Your task to perform on an android device: find photos in the google photos app Image 0: 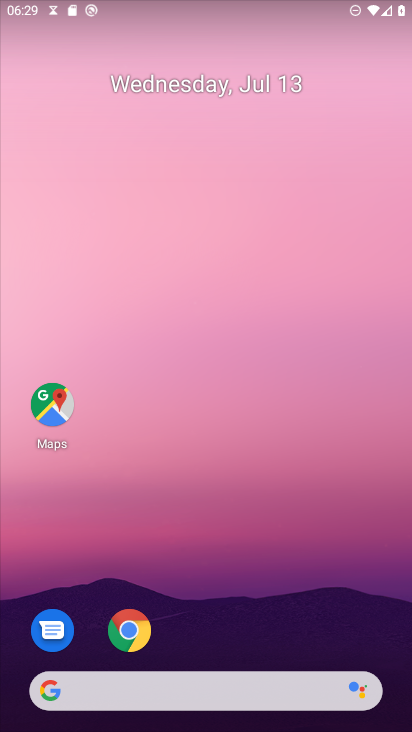
Step 0: drag from (165, 644) to (257, 116)
Your task to perform on an android device: find photos in the google photos app Image 1: 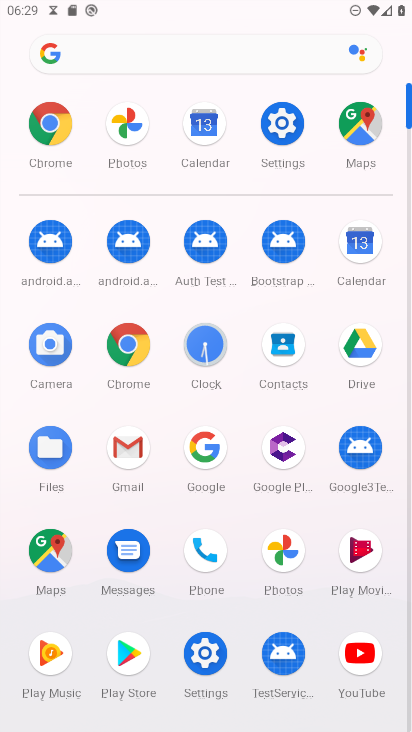
Step 1: click (291, 541)
Your task to perform on an android device: find photos in the google photos app Image 2: 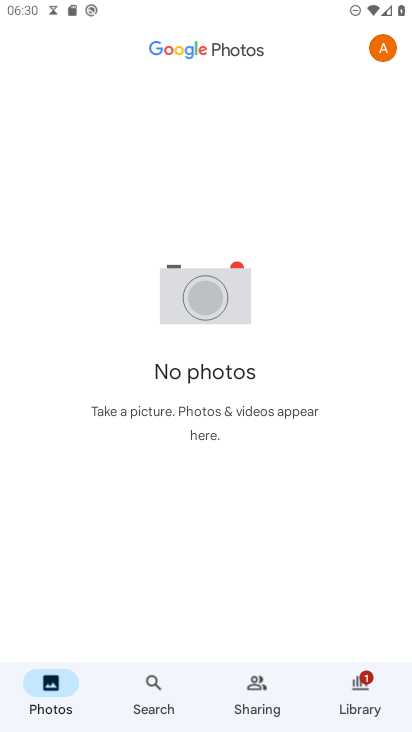
Step 2: task complete